Your task to perform on an android device: set the stopwatch Image 0: 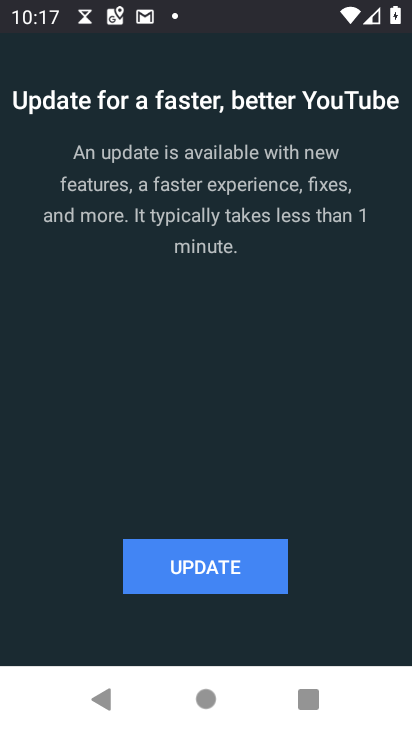
Step 0: press home button
Your task to perform on an android device: set the stopwatch Image 1: 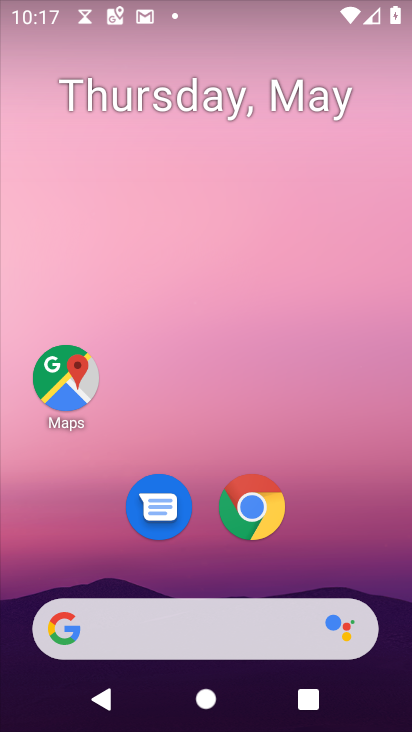
Step 1: drag from (161, 723) to (129, 34)
Your task to perform on an android device: set the stopwatch Image 2: 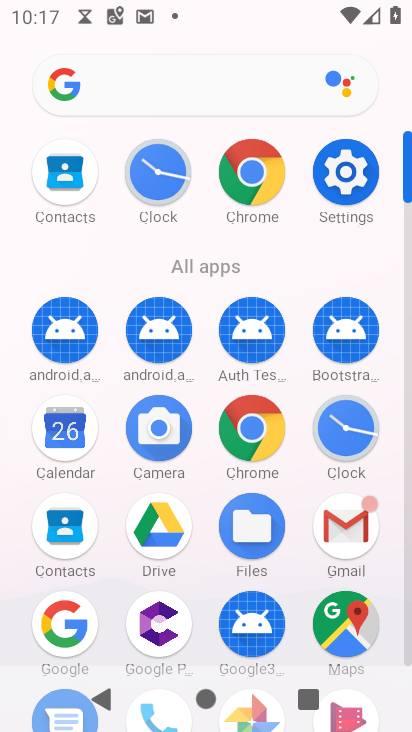
Step 2: click (165, 175)
Your task to perform on an android device: set the stopwatch Image 3: 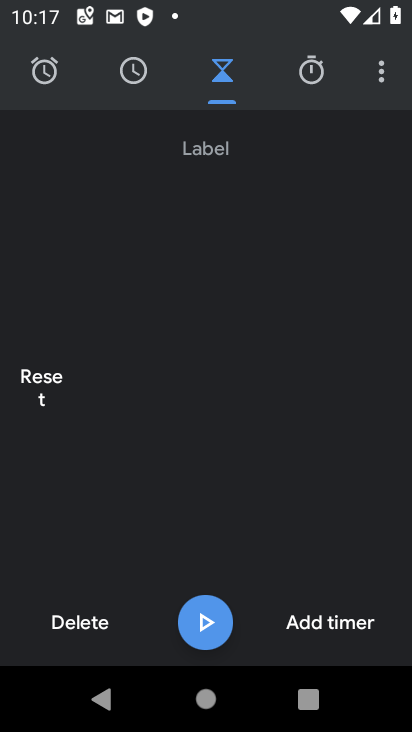
Step 3: click (310, 83)
Your task to perform on an android device: set the stopwatch Image 4: 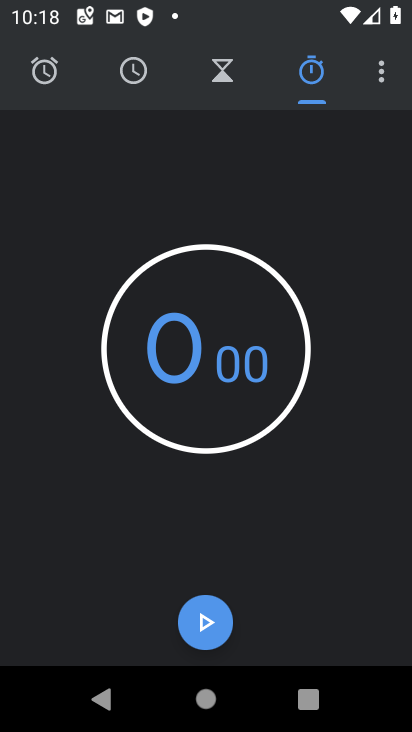
Step 4: click (204, 632)
Your task to perform on an android device: set the stopwatch Image 5: 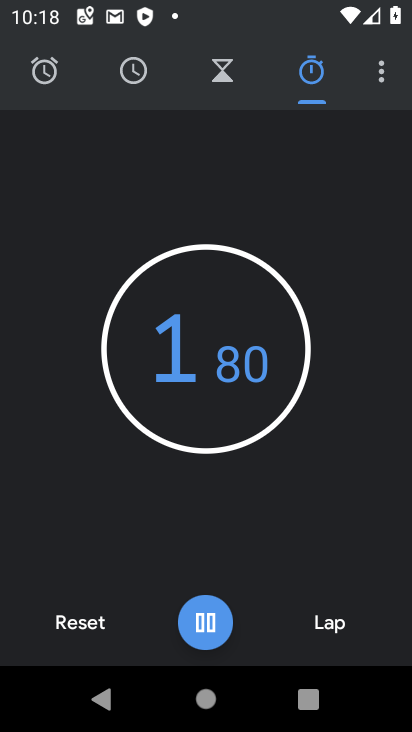
Step 5: click (204, 632)
Your task to perform on an android device: set the stopwatch Image 6: 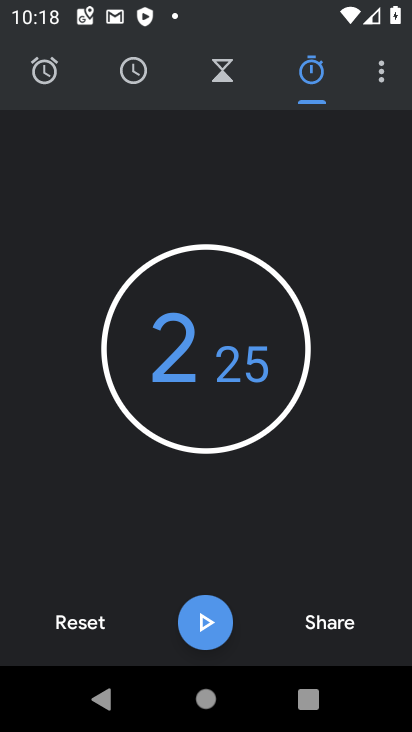
Step 6: task complete